Your task to perform on an android device: Go to Amazon Image 0: 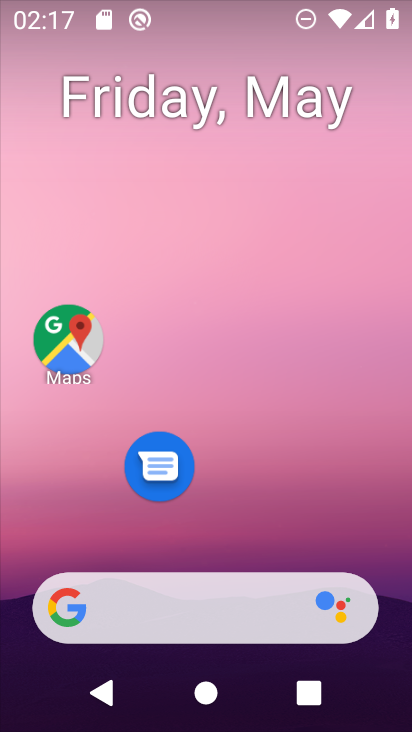
Step 0: drag from (381, 555) to (387, 31)
Your task to perform on an android device: Go to Amazon Image 1: 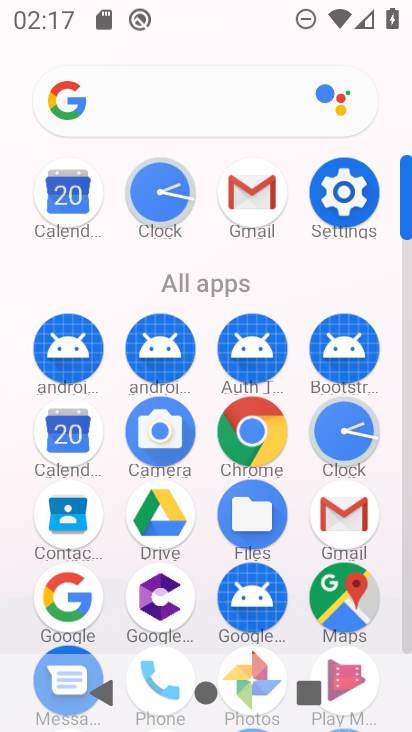
Step 1: click (402, 583)
Your task to perform on an android device: Go to Amazon Image 2: 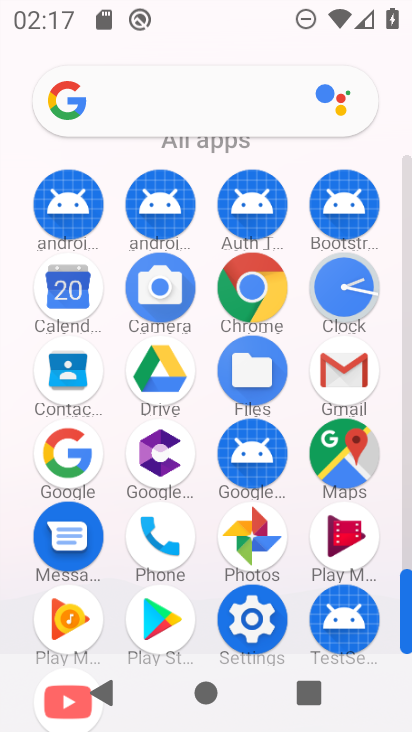
Step 2: click (264, 292)
Your task to perform on an android device: Go to Amazon Image 3: 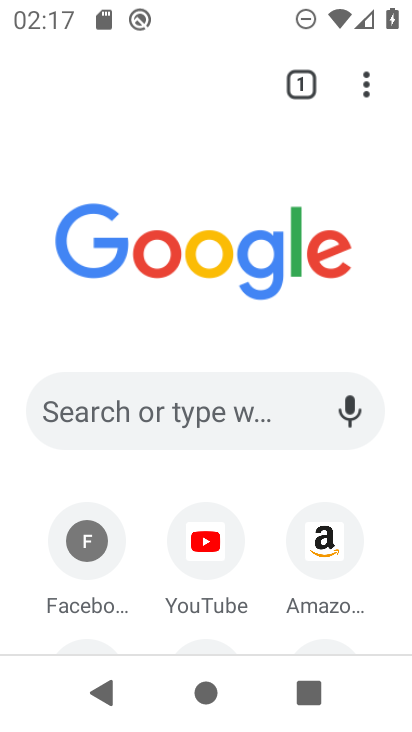
Step 3: click (338, 572)
Your task to perform on an android device: Go to Amazon Image 4: 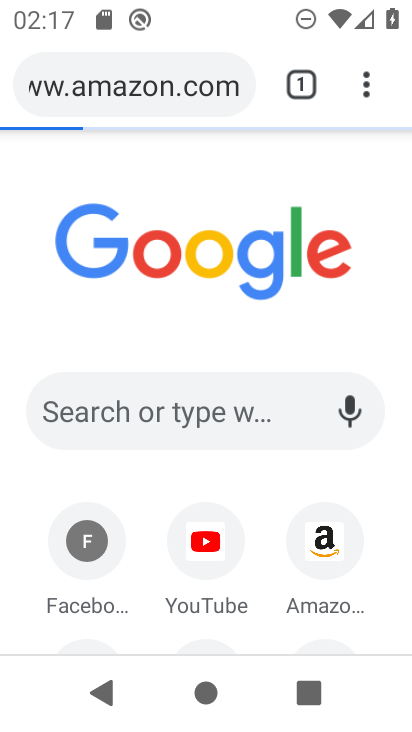
Step 4: task complete